Your task to perform on an android device: What is the recent news? Image 0: 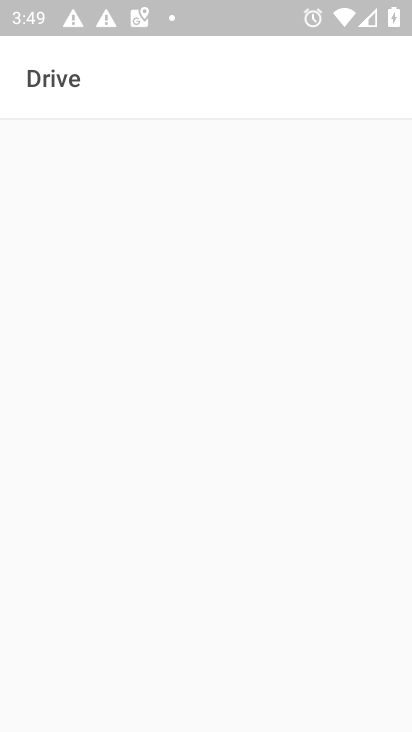
Step 0: press home button
Your task to perform on an android device: What is the recent news? Image 1: 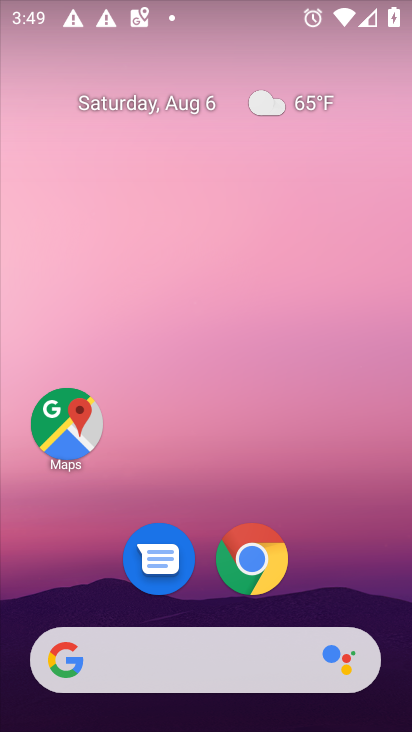
Step 1: click (251, 653)
Your task to perform on an android device: What is the recent news? Image 2: 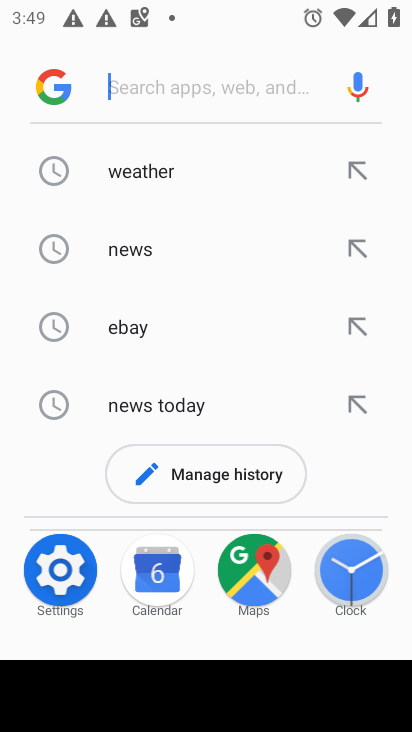
Step 2: click (142, 238)
Your task to perform on an android device: What is the recent news? Image 3: 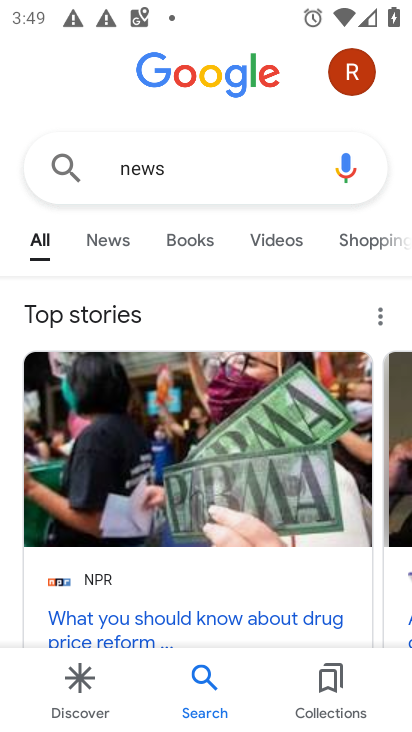
Step 3: click (123, 247)
Your task to perform on an android device: What is the recent news? Image 4: 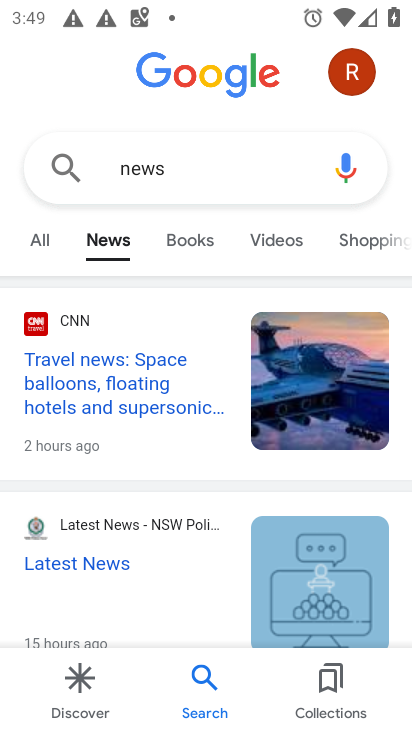
Step 4: task complete